Your task to perform on an android device: turn on the 12-hour format for clock Image 0: 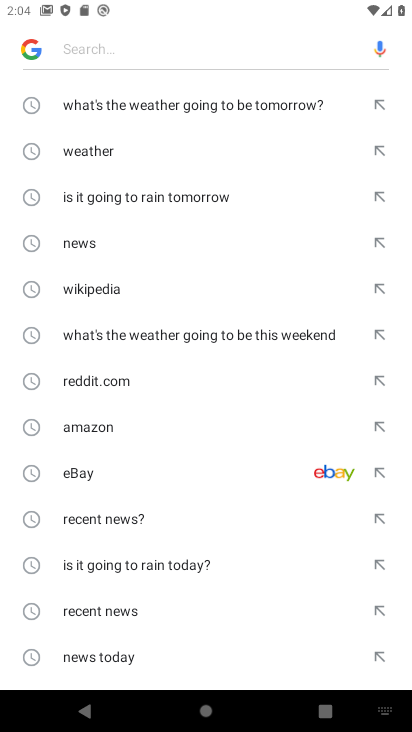
Step 0: press home button
Your task to perform on an android device: turn on the 12-hour format for clock Image 1: 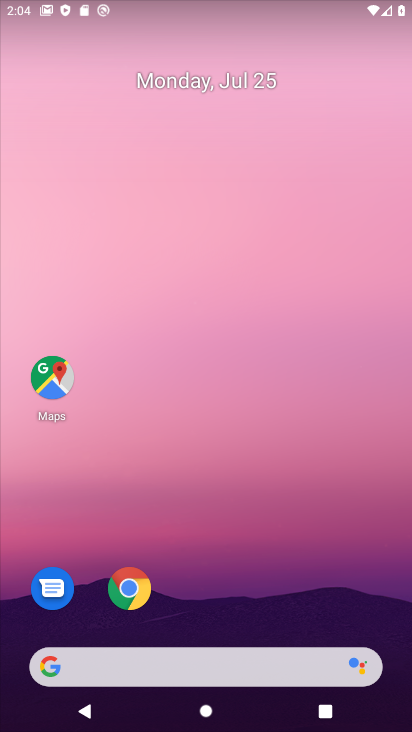
Step 1: drag from (195, 609) to (206, 110)
Your task to perform on an android device: turn on the 12-hour format for clock Image 2: 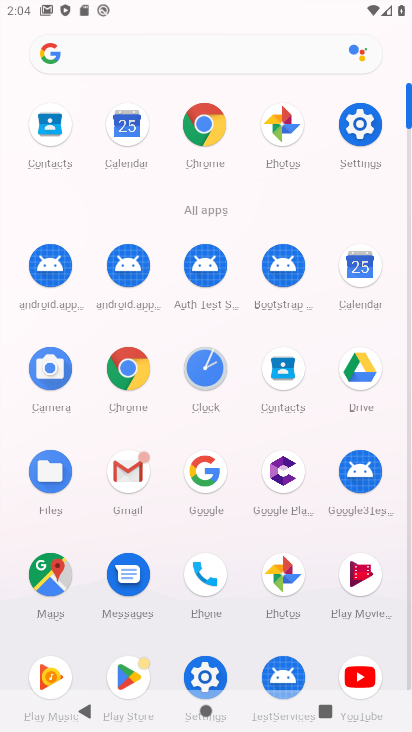
Step 2: click (208, 383)
Your task to perform on an android device: turn on the 12-hour format for clock Image 3: 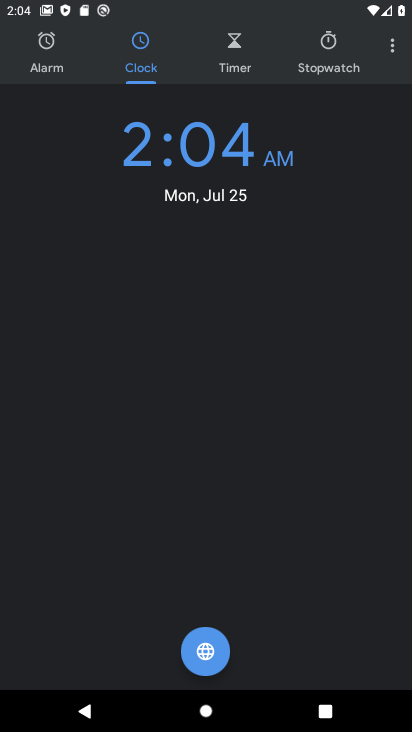
Step 3: click (394, 39)
Your task to perform on an android device: turn on the 12-hour format for clock Image 4: 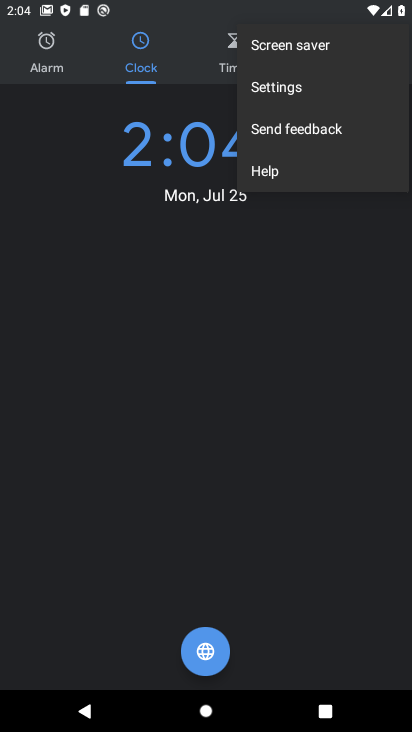
Step 4: click (310, 92)
Your task to perform on an android device: turn on the 12-hour format for clock Image 5: 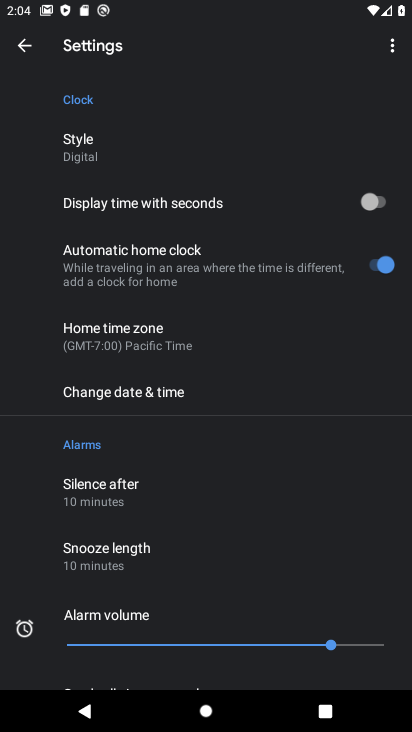
Step 5: click (169, 382)
Your task to perform on an android device: turn on the 12-hour format for clock Image 6: 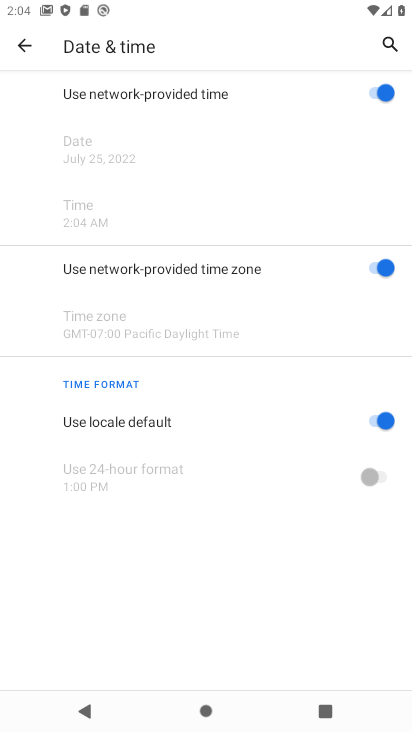
Step 6: task complete